Your task to perform on an android device: See recent photos Image 0: 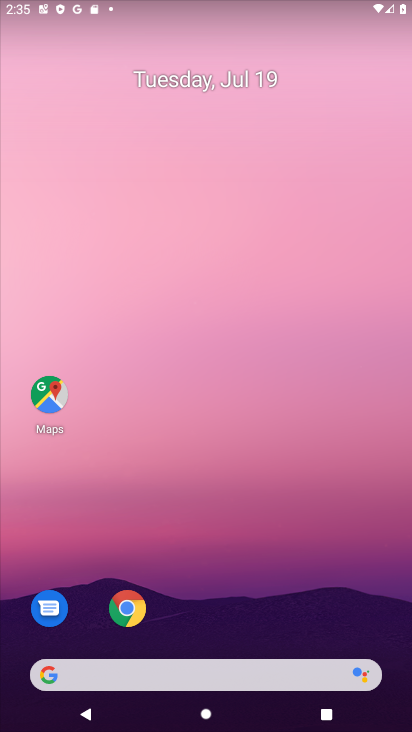
Step 0: drag from (334, 578) to (244, 75)
Your task to perform on an android device: See recent photos Image 1: 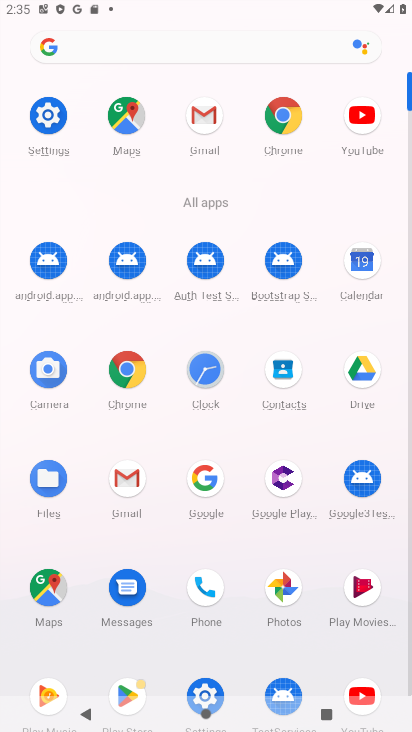
Step 1: click (280, 591)
Your task to perform on an android device: See recent photos Image 2: 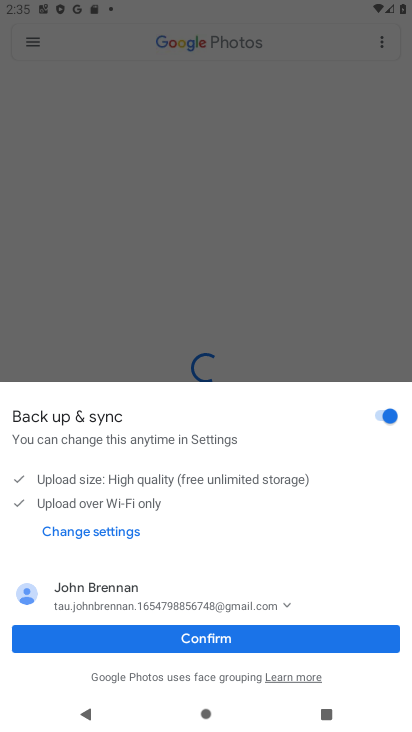
Step 2: click (222, 635)
Your task to perform on an android device: See recent photos Image 3: 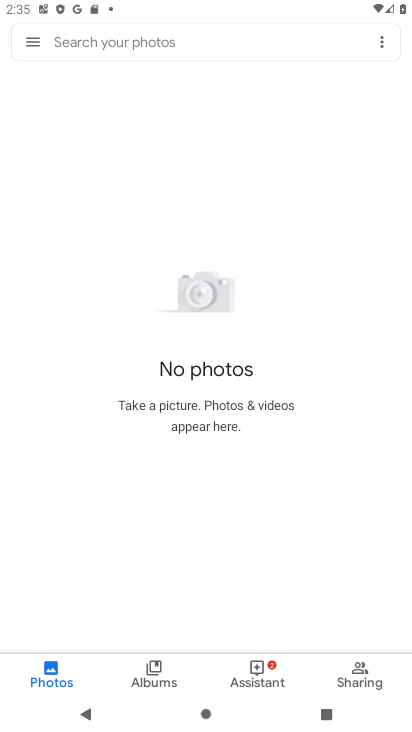
Step 3: task complete